Your task to perform on an android device: What's the weather going to be this weekend? Image 0: 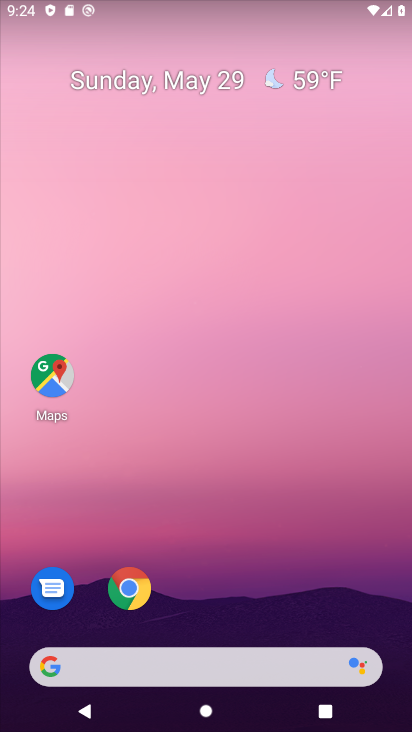
Step 0: drag from (204, 614) to (187, 145)
Your task to perform on an android device: What's the weather going to be this weekend? Image 1: 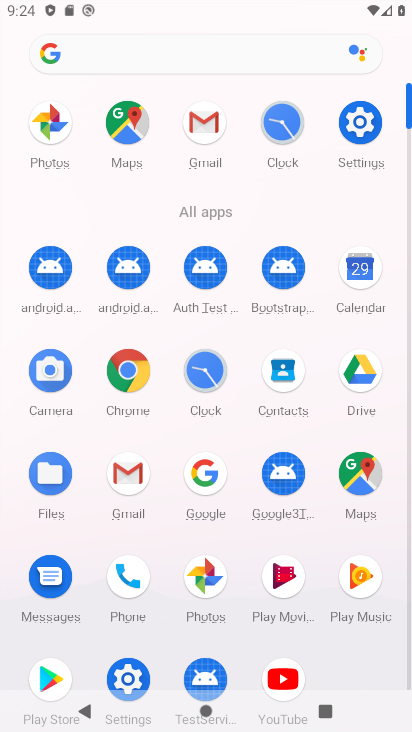
Step 1: click (125, 374)
Your task to perform on an android device: What's the weather going to be this weekend? Image 2: 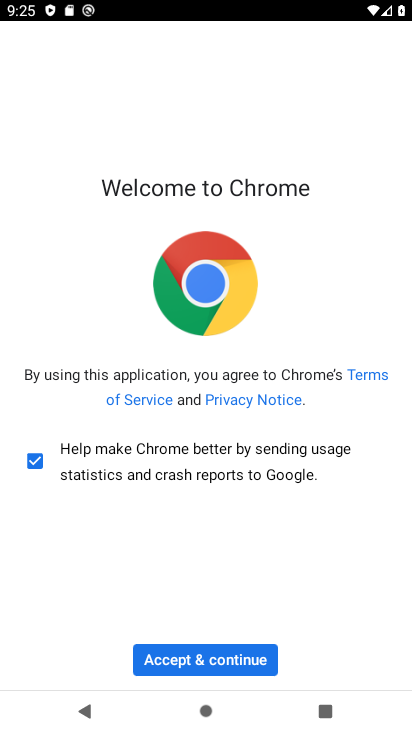
Step 2: click (258, 659)
Your task to perform on an android device: What's the weather going to be this weekend? Image 3: 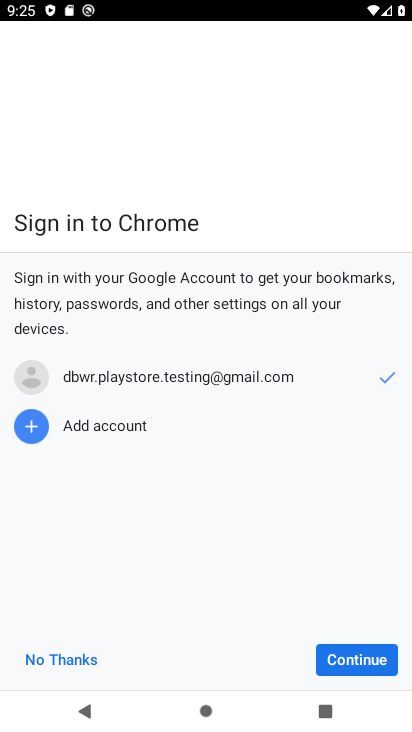
Step 3: click (344, 662)
Your task to perform on an android device: What's the weather going to be this weekend? Image 4: 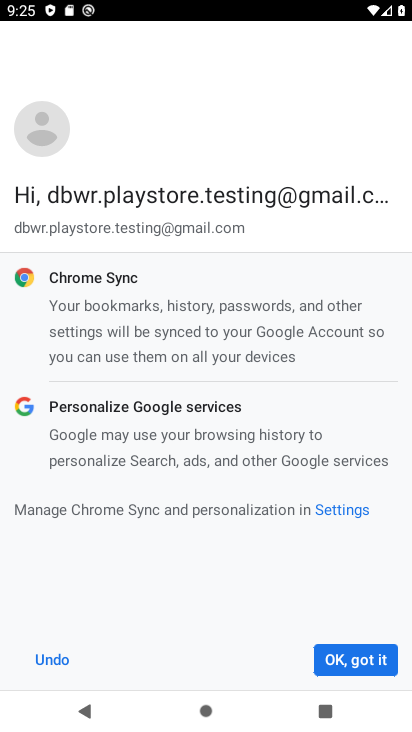
Step 4: click (360, 662)
Your task to perform on an android device: What's the weather going to be this weekend? Image 5: 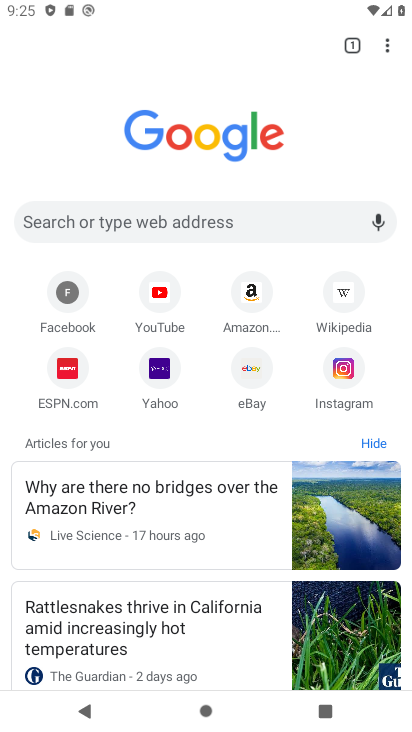
Step 5: click (295, 223)
Your task to perform on an android device: What's the weather going to be this weekend? Image 6: 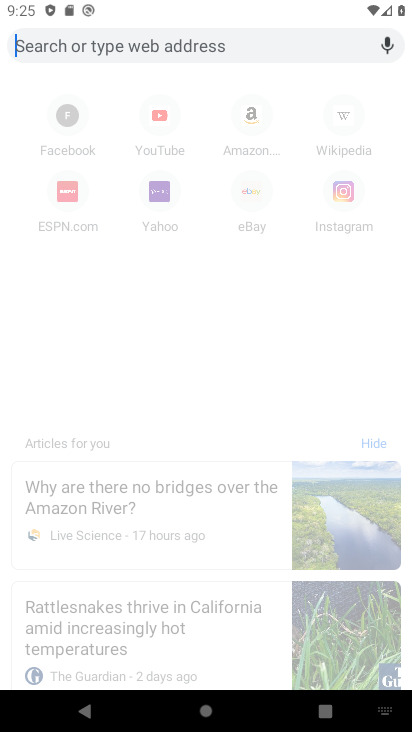
Step 6: type "What's the weather going to be this weekend?"
Your task to perform on an android device: What's the weather going to be this weekend? Image 7: 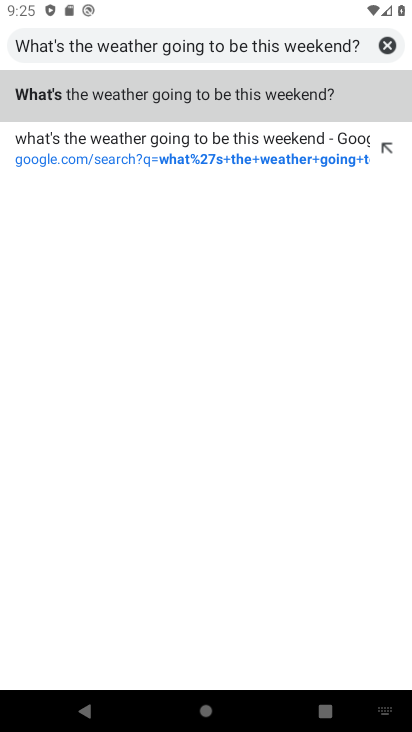
Step 7: click (233, 135)
Your task to perform on an android device: What's the weather going to be this weekend? Image 8: 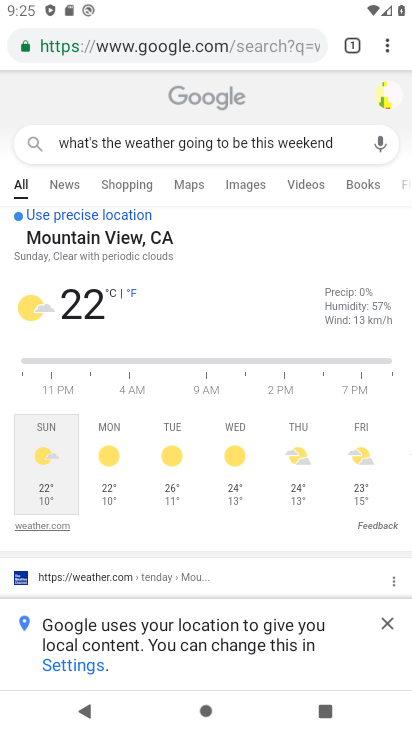
Step 8: click (388, 629)
Your task to perform on an android device: What's the weather going to be this weekend? Image 9: 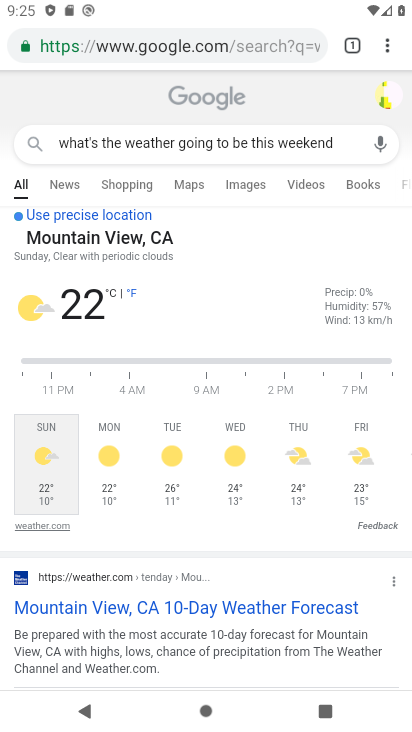
Step 9: click (356, 448)
Your task to perform on an android device: What's the weather going to be this weekend? Image 10: 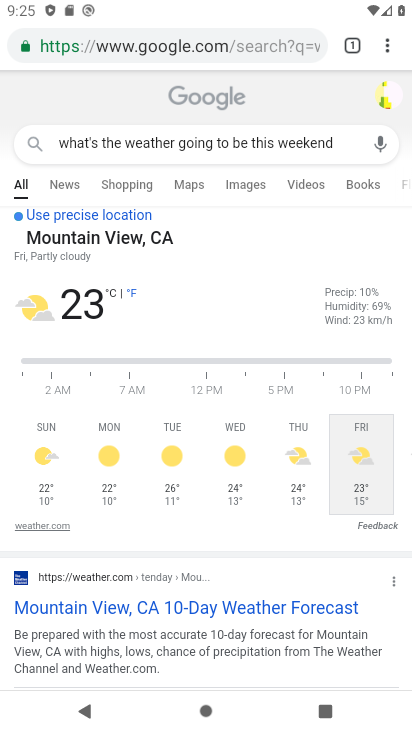
Step 10: task complete